Your task to perform on an android device: Go to wifi settings Image 0: 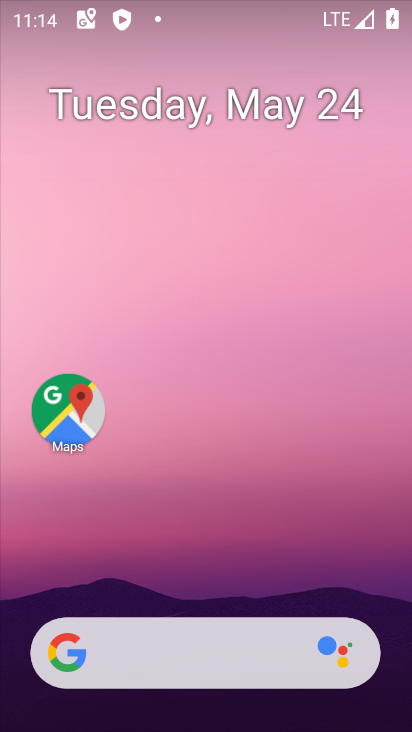
Step 0: drag from (166, 665) to (191, 189)
Your task to perform on an android device: Go to wifi settings Image 1: 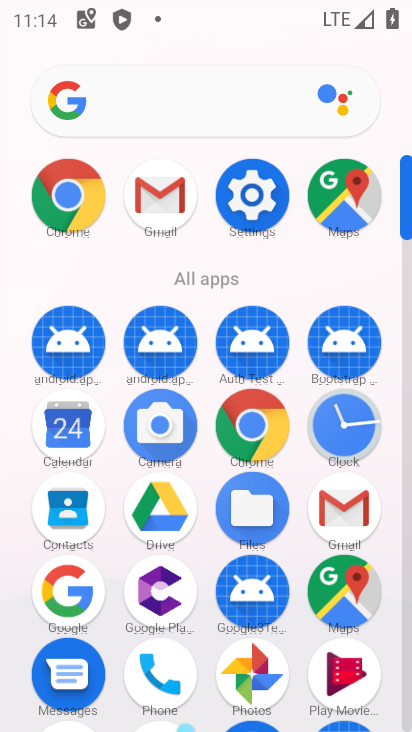
Step 1: click (251, 213)
Your task to perform on an android device: Go to wifi settings Image 2: 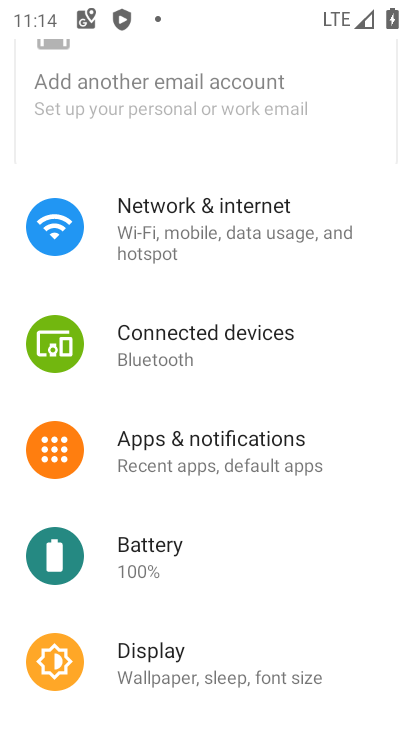
Step 2: click (231, 233)
Your task to perform on an android device: Go to wifi settings Image 3: 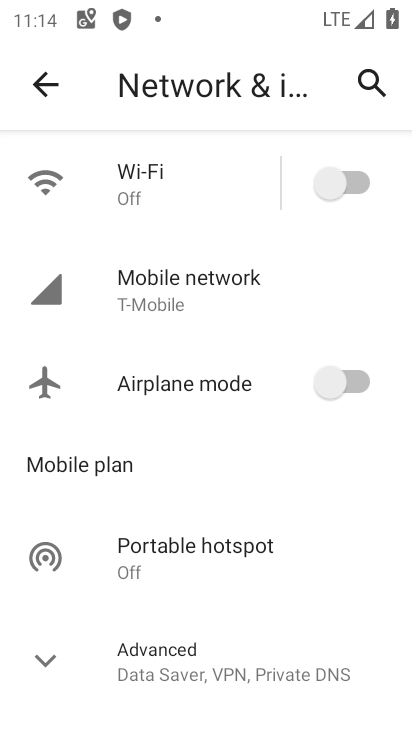
Step 3: click (132, 205)
Your task to perform on an android device: Go to wifi settings Image 4: 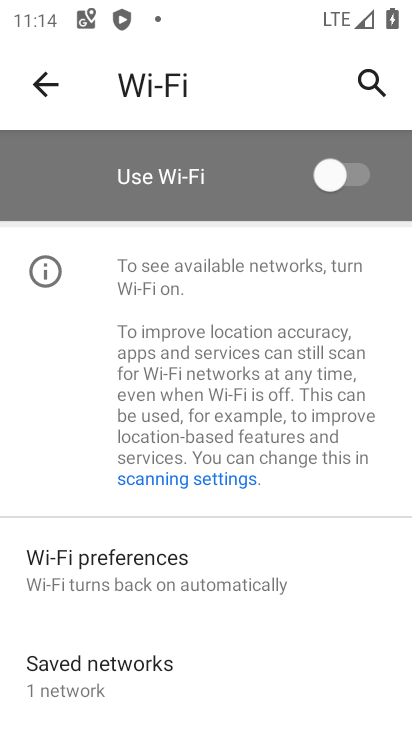
Step 4: task complete